Your task to perform on an android device: Clear the shopping cart on newegg. Image 0: 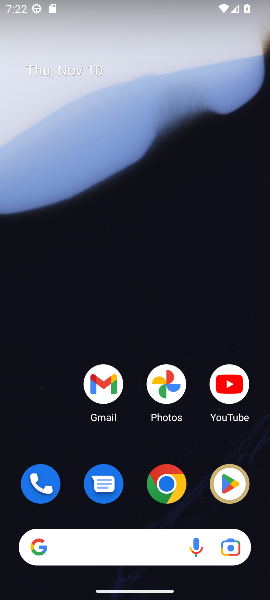
Step 0: click (166, 484)
Your task to perform on an android device: Clear the shopping cart on newegg. Image 1: 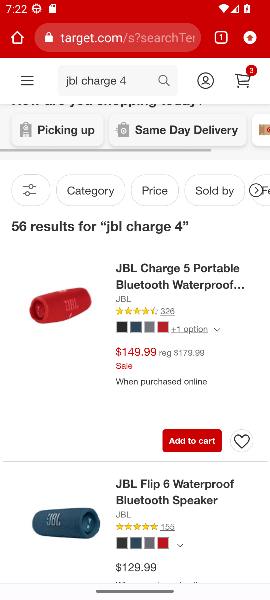
Step 1: click (101, 40)
Your task to perform on an android device: Clear the shopping cart on newegg. Image 2: 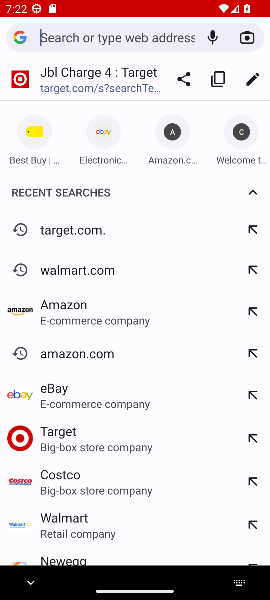
Step 2: type "newegg.com"
Your task to perform on an android device: Clear the shopping cart on newegg. Image 3: 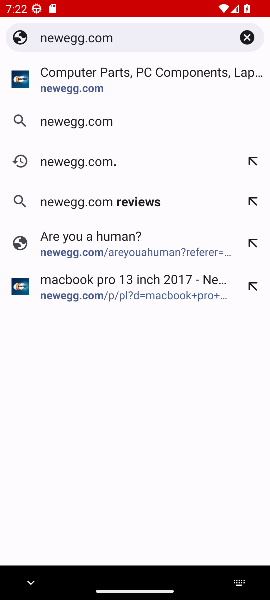
Step 3: click (60, 93)
Your task to perform on an android device: Clear the shopping cart on newegg. Image 4: 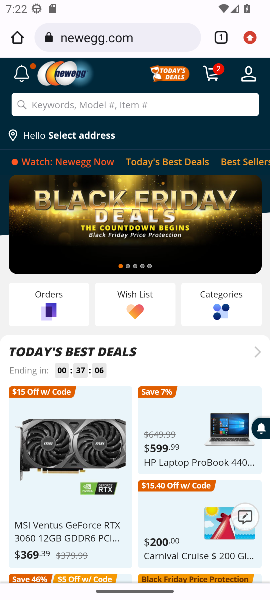
Step 4: click (214, 77)
Your task to perform on an android device: Clear the shopping cart on newegg. Image 5: 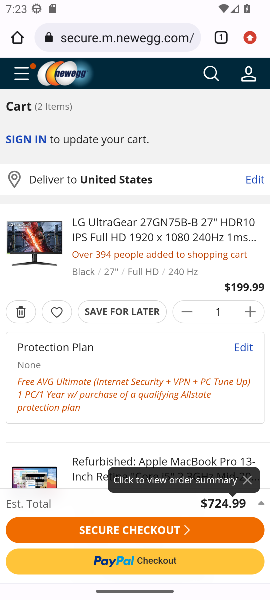
Step 5: click (18, 316)
Your task to perform on an android device: Clear the shopping cart on newegg. Image 6: 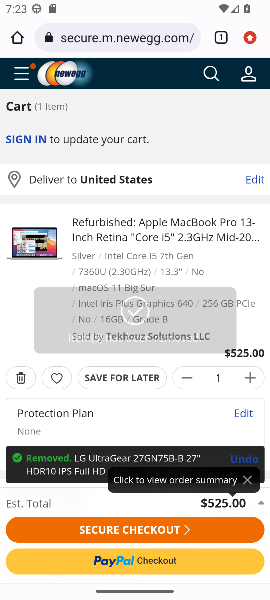
Step 6: click (24, 379)
Your task to perform on an android device: Clear the shopping cart on newegg. Image 7: 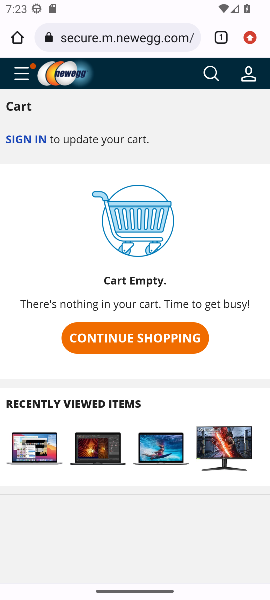
Step 7: task complete